Your task to perform on an android device: Play the last video I watched on Youtube Image 0: 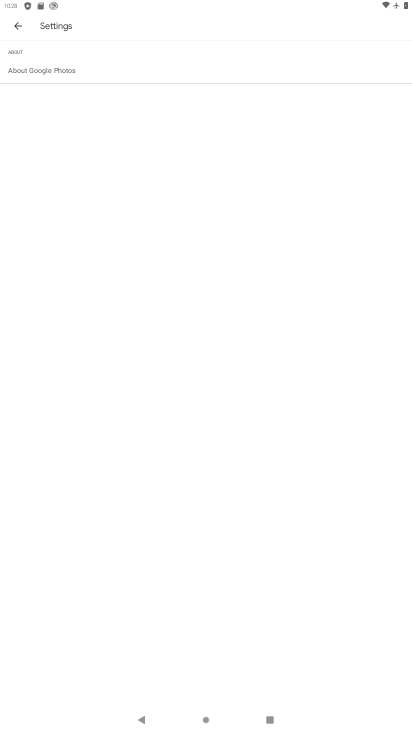
Step 0: press home button
Your task to perform on an android device: Play the last video I watched on Youtube Image 1: 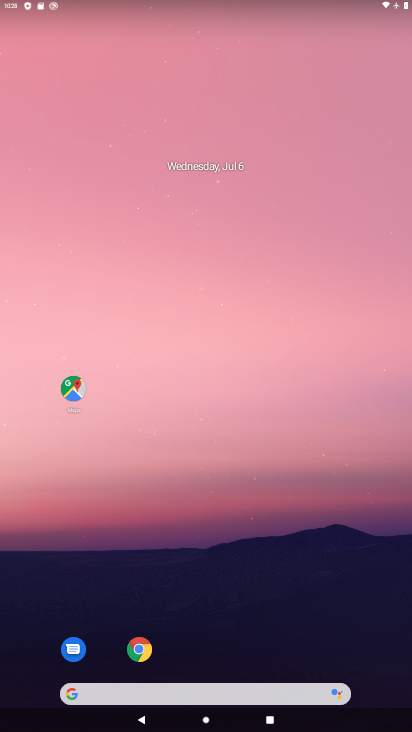
Step 1: drag from (379, 672) to (381, 293)
Your task to perform on an android device: Play the last video I watched on Youtube Image 2: 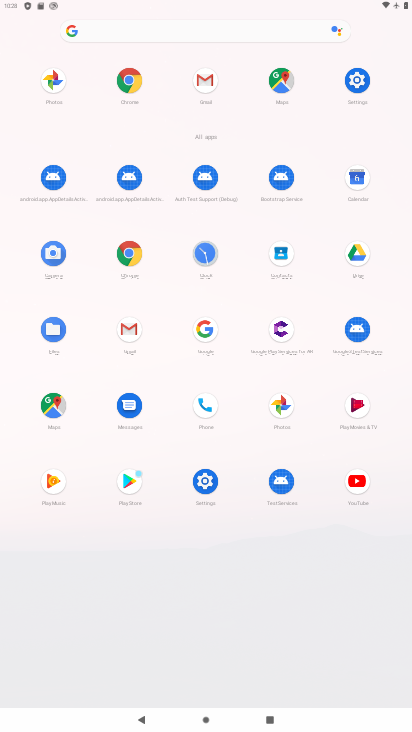
Step 2: click (364, 480)
Your task to perform on an android device: Play the last video I watched on Youtube Image 3: 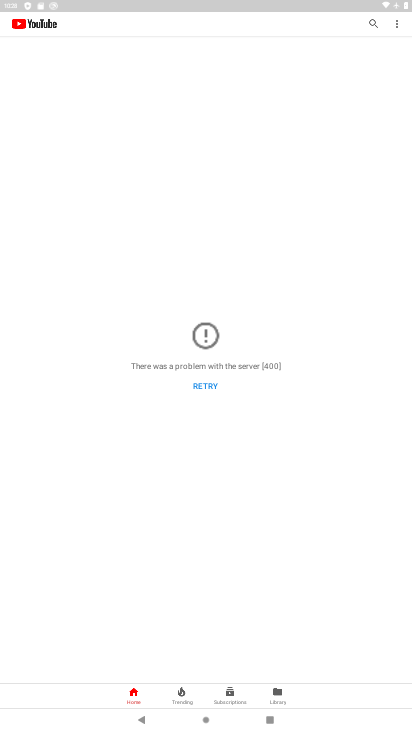
Step 3: click (275, 692)
Your task to perform on an android device: Play the last video I watched on Youtube Image 4: 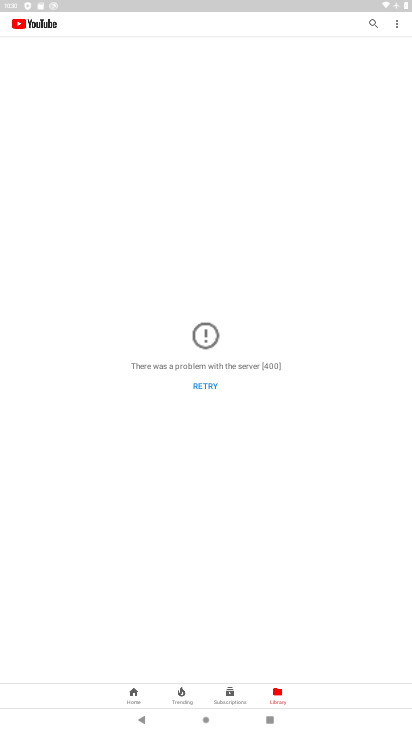
Step 4: task complete